Your task to perform on an android device: toggle priority inbox in the gmail app Image 0: 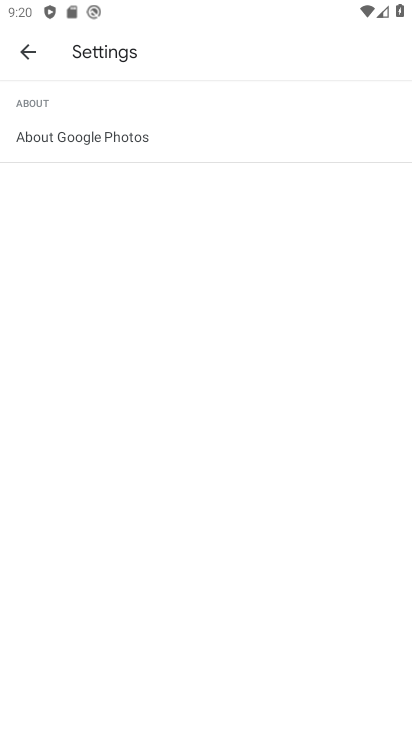
Step 0: press home button
Your task to perform on an android device: toggle priority inbox in the gmail app Image 1: 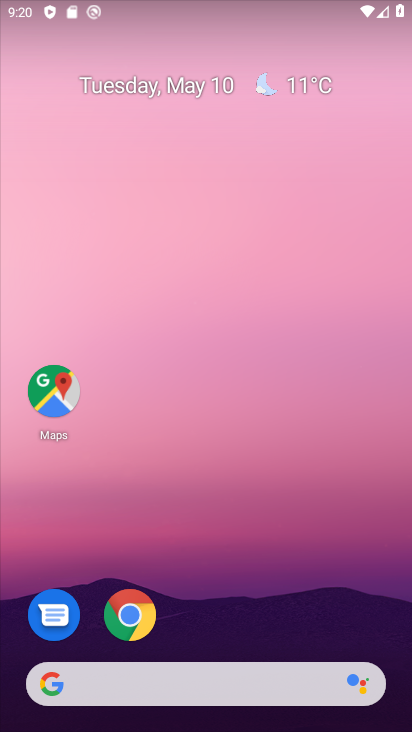
Step 1: drag from (224, 634) to (312, 55)
Your task to perform on an android device: toggle priority inbox in the gmail app Image 2: 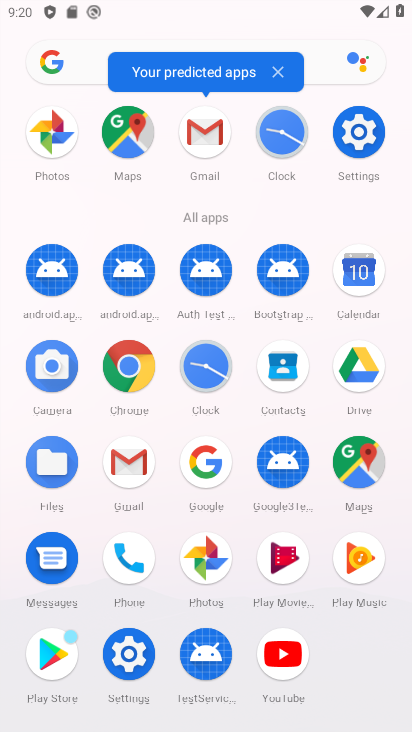
Step 2: click (127, 456)
Your task to perform on an android device: toggle priority inbox in the gmail app Image 3: 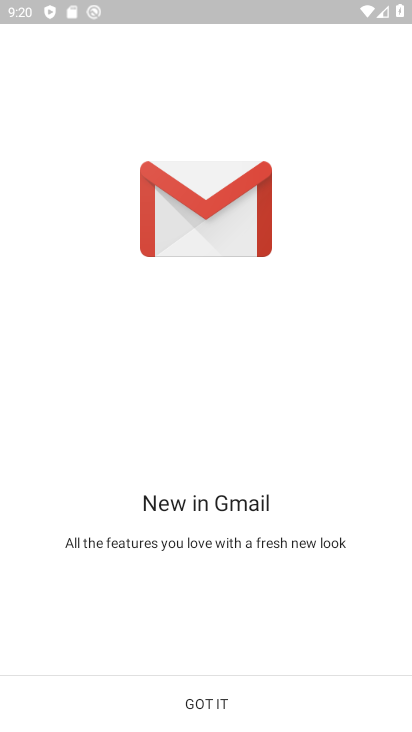
Step 3: click (210, 706)
Your task to perform on an android device: toggle priority inbox in the gmail app Image 4: 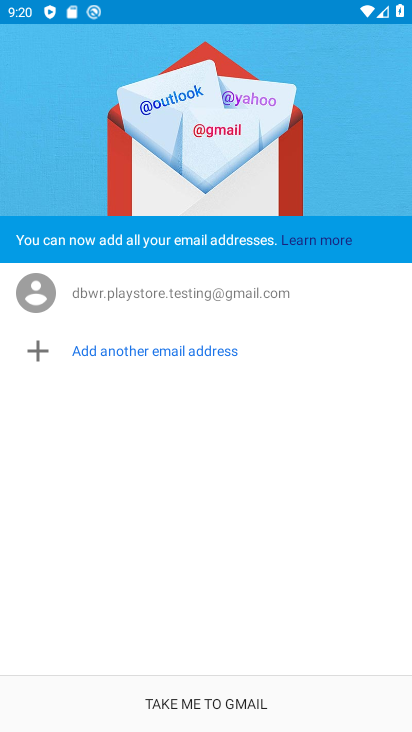
Step 4: click (206, 697)
Your task to perform on an android device: toggle priority inbox in the gmail app Image 5: 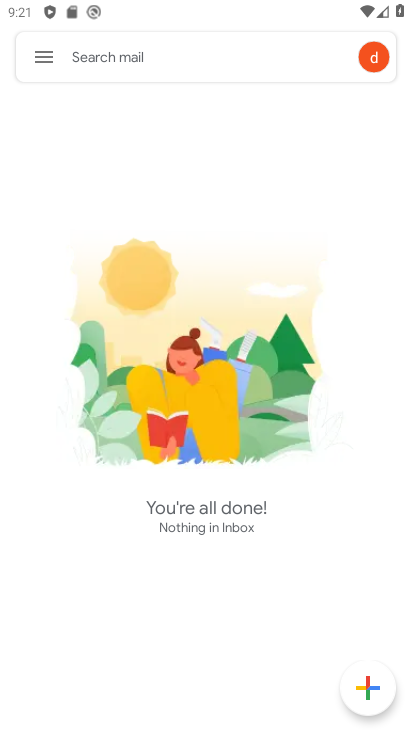
Step 5: click (41, 58)
Your task to perform on an android device: toggle priority inbox in the gmail app Image 6: 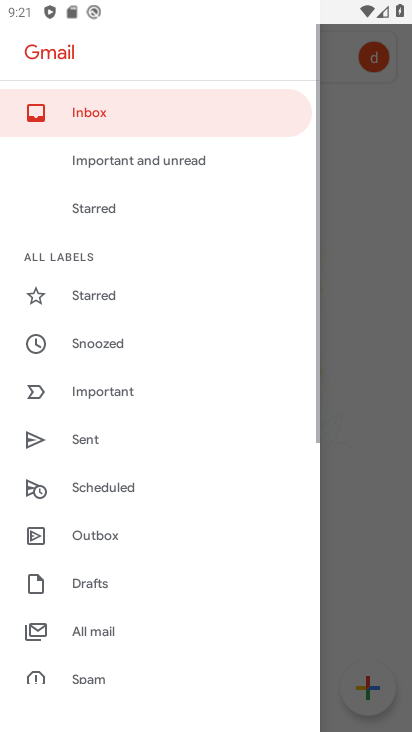
Step 6: drag from (122, 668) to (118, 252)
Your task to perform on an android device: toggle priority inbox in the gmail app Image 7: 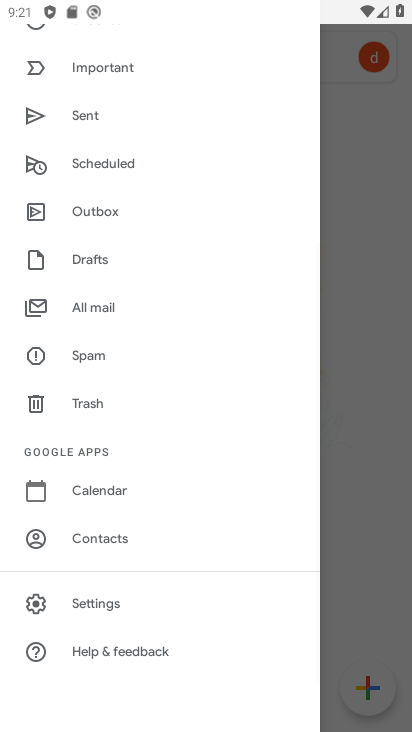
Step 7: click (115, 599)
Your task to perform on an android device: toggle priority inbox in the gmail app Image 8: 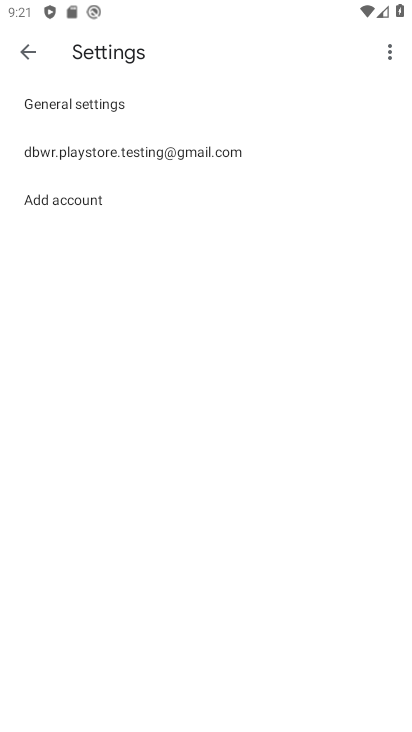
Step 8: click (229, 151)
Your task to perform on an android device: toggle priority inbox in the gmail app Image 9: 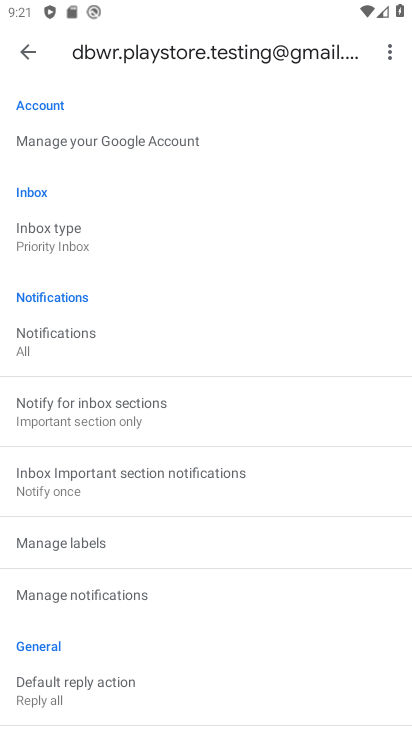
Step 9: click (86, 241)
Your task to perform on an android device: toggle priority inbox in the gmail app Image 10: 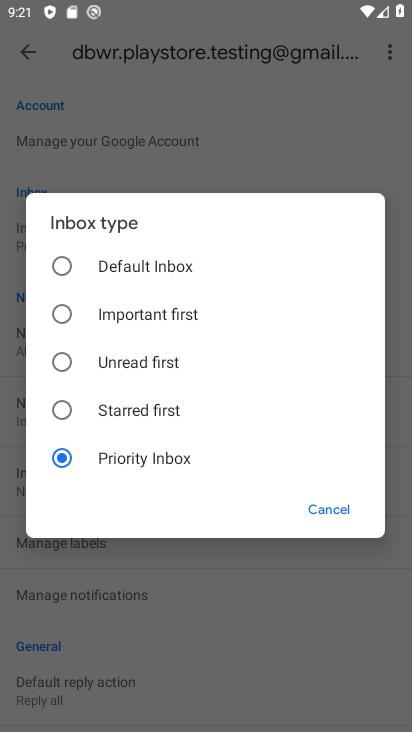
Step 10: click (76, 454)
Your task to perform on an android device: toggle priority inbox in the gmail app Image 11: 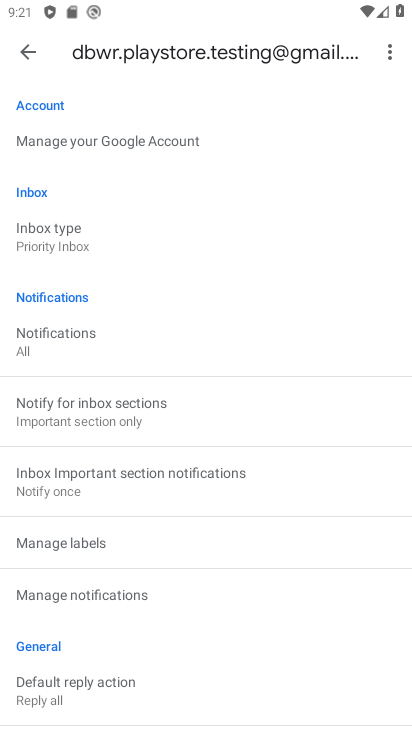
Step 11: task complete